Your task to perform on an android device: Show me popular games on the Play Store Image 0: 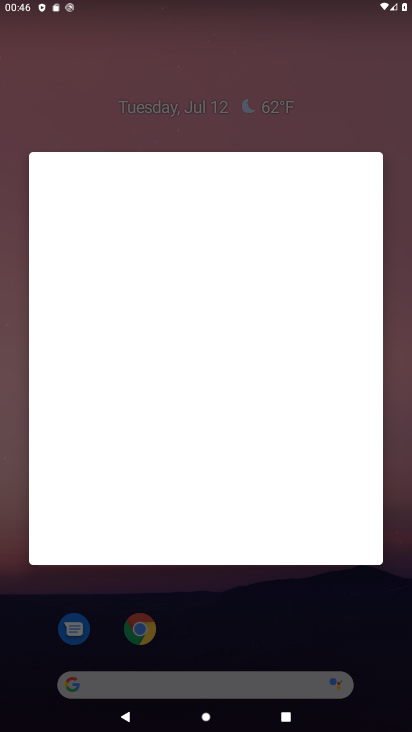
Step 0: press home button
Your task to perform on an android device: Show me popular games on the Play Store Image 1: 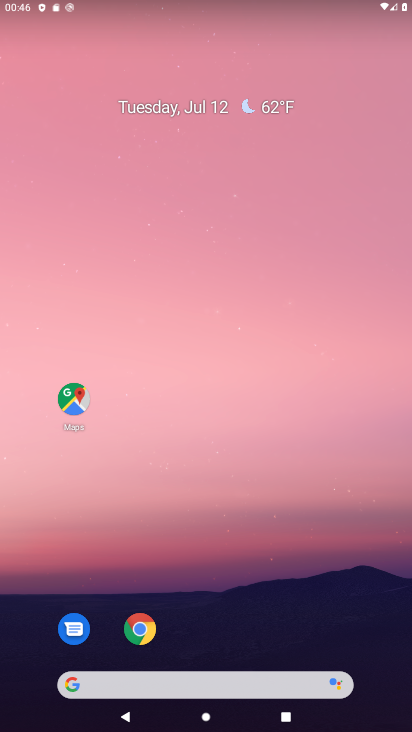
Step 1: press home button
Your task to perform on an android device: Show me popular games on the Play Store Image 2: 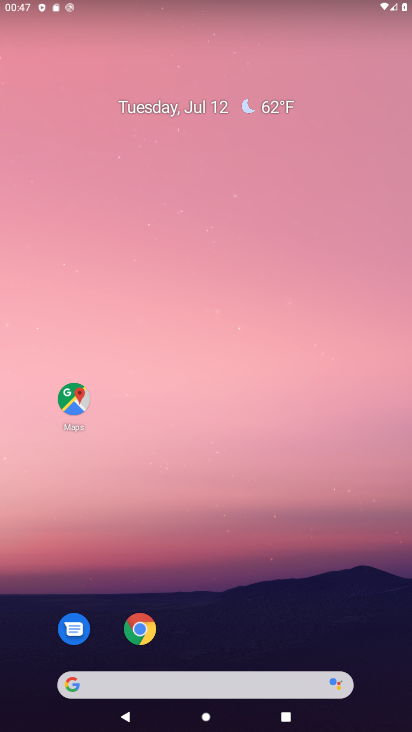
Step 2: drag from (254, 620) to (227, 243)
Your task to perform on an android device: Show me popular games on the Play Store Image 3: 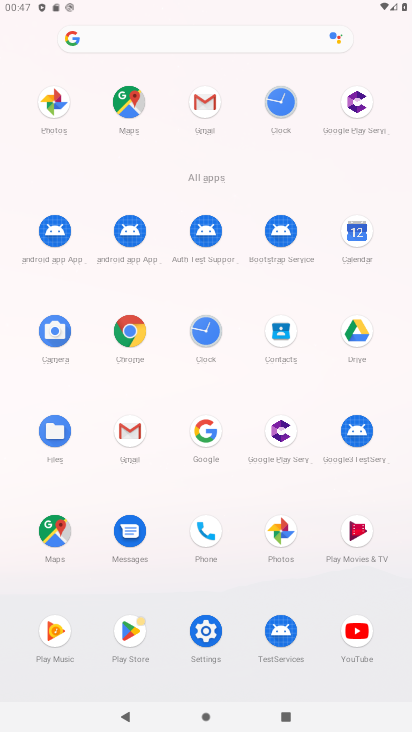
Step 3: click (130, 633)
Your task to perform on an android device: Show me popular games on the Play Store Image 4: 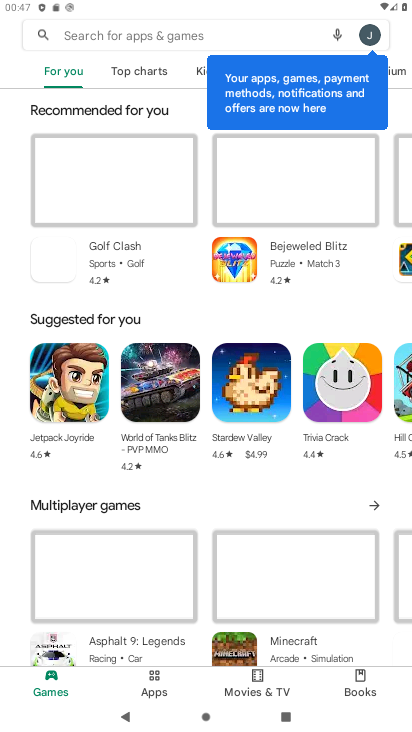
Step 4: click (155, 37)
Your task to perform on an android device: Show me popular games on the Play Store Image 5: 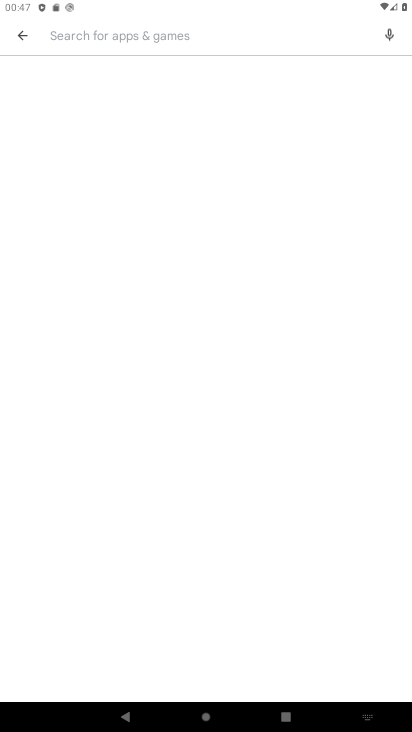
Step 5: type " popular games "
Your task to perform on an android device: Show me popular games on the Play Store Image 6: 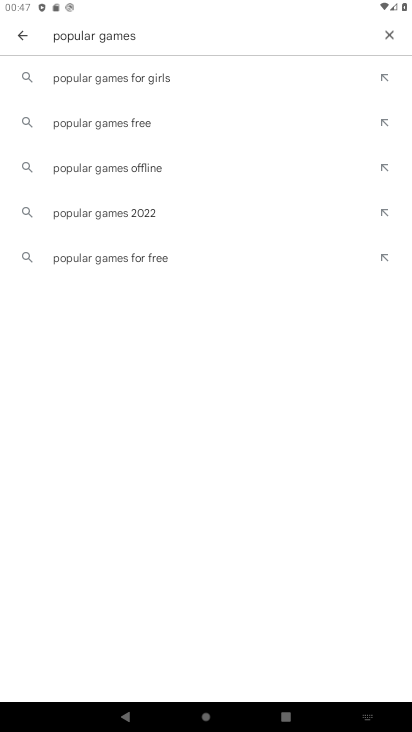
Step 6: click (83, 131)
Your task to perform on an android device: Show me popular games on the Play Store Image 7: 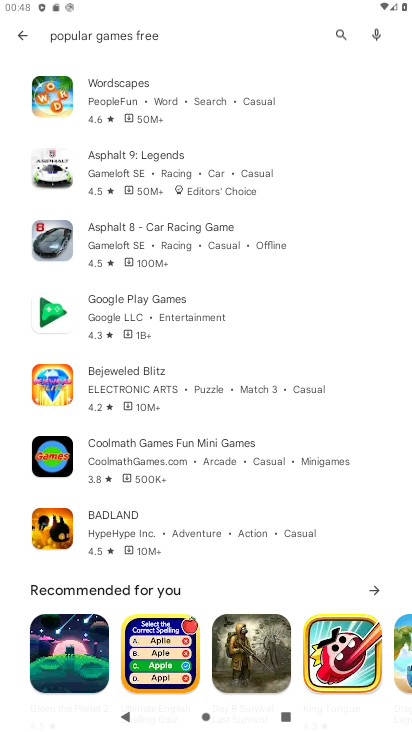
Step 7: task complete